Your task to perform on an android device: Open Google Chrome Image 0: 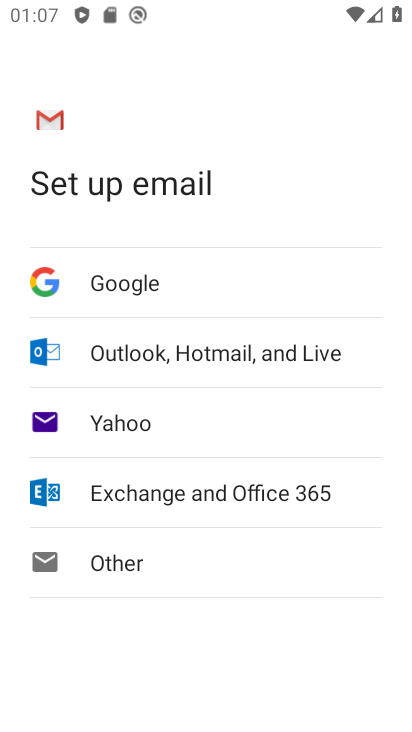
Step 0: press home button
Your task to perform on an android device: Open Google Chrome Image 1: 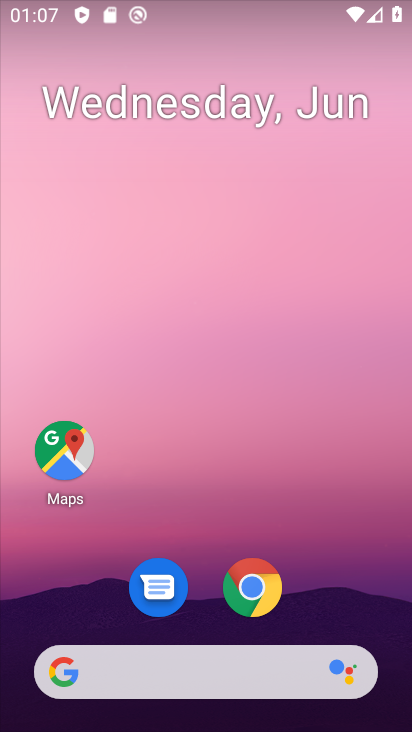
Step 1: click (254, 584)
Your task to perform on an android device: Open Google Chrome Image 2: 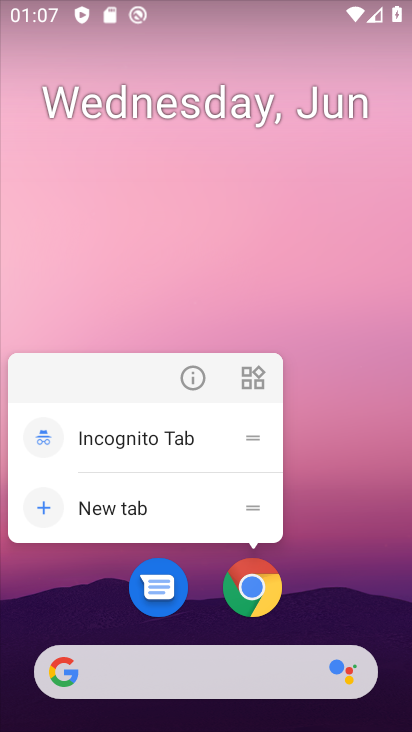
Step 2: click (252, 590)
Your task to perform on an android device: Open Google Chrome Image 3: 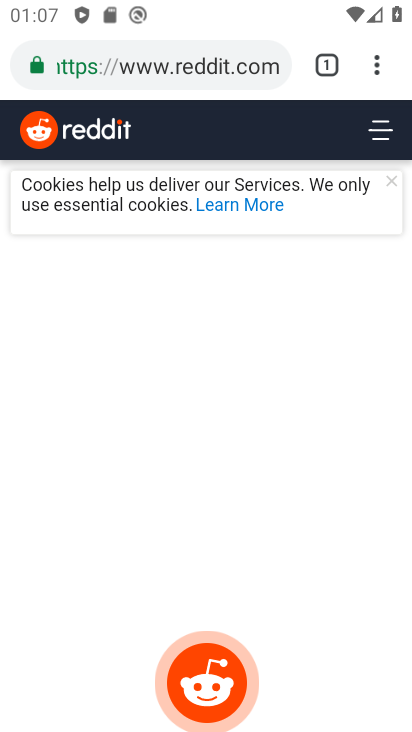
Step 3: task complete